Your task to perform on an android device: turn off data saver in the chrome app Image 0: 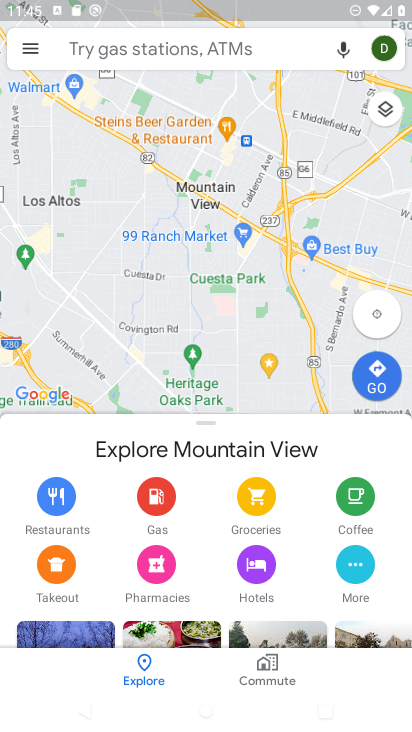
Step 0: press home button
Your task to perform on an android device: turn off data saver in the chrome app Image 1: 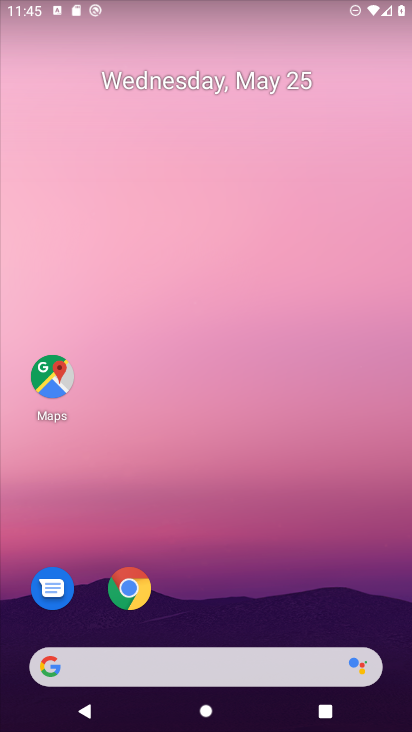
Step 1: click (122, 582)
Your task to perform on an android device: turn off data saver in the chrome app Image 2: 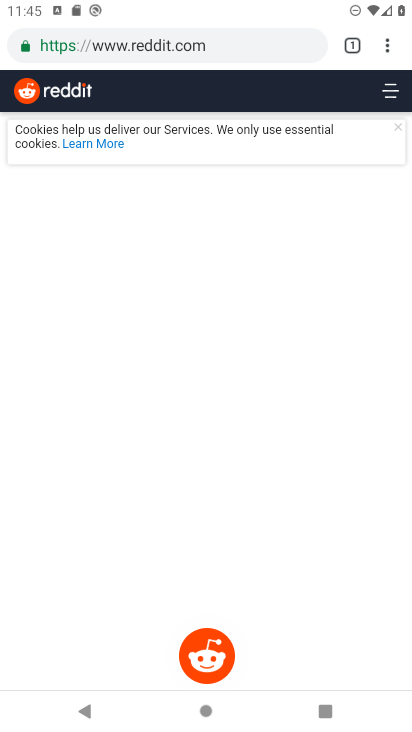
Step 2: click (383, 40)
Your task to perform on an android device: turn off data saver in the chrome app Image 3: 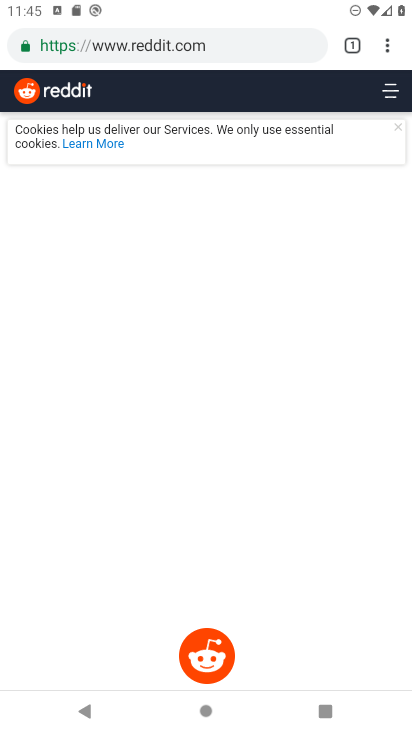
Step 3: click (385, 47)
Your task to perform on an android device: turn off data saver in the chrome app Image 4: 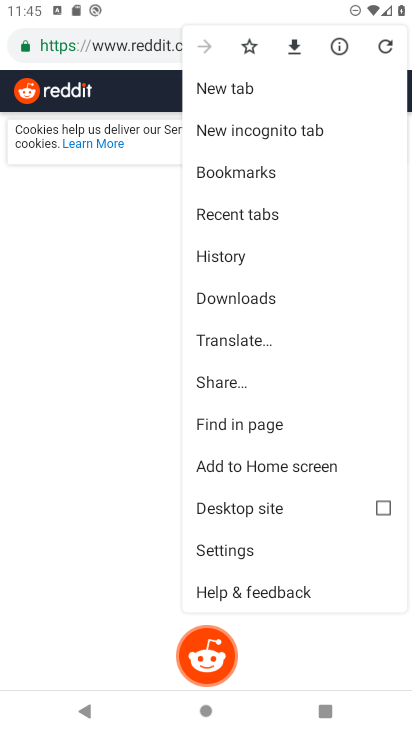
Step 4: click (267, 549)
Your task to perform on an android device: turn off data saver in the chrome app Image 5: 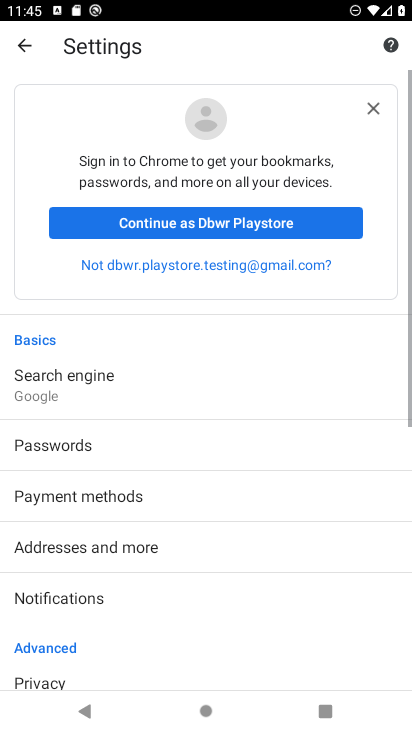
Step 5: drag from (7, 569) to (227, 203)
Your task to perform on an android device: turn off data saver in the chrome app Image 6: 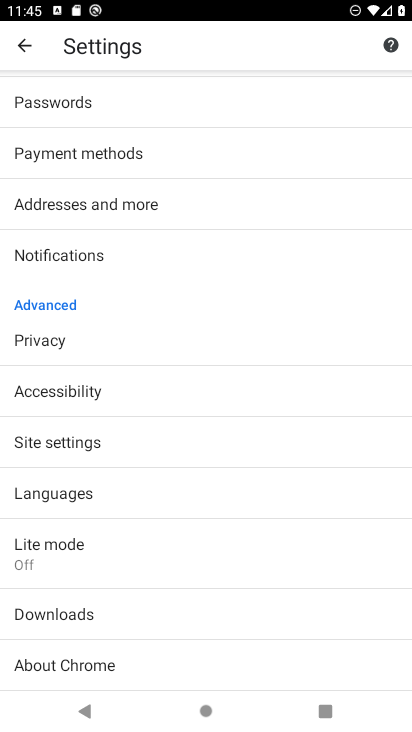
Step 6: drag from (7, 620) to (124, 425)
Your task to perform on an android device: turn off data saver in the chrome app Image 7: 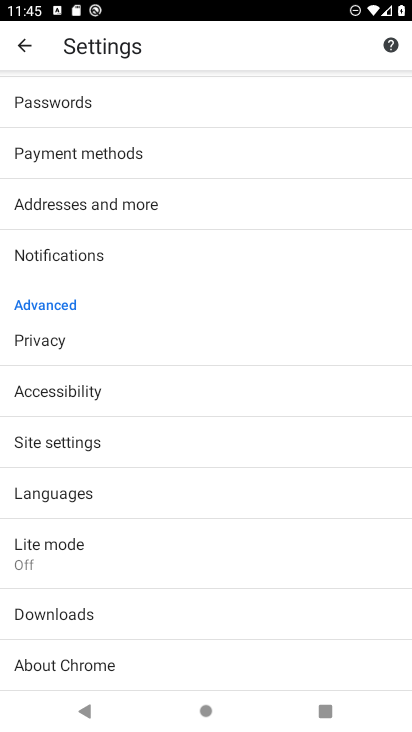
Step 7: click (49, 551)
Your task to perform on an android device: turn off data saver in the chrome app Image 8: 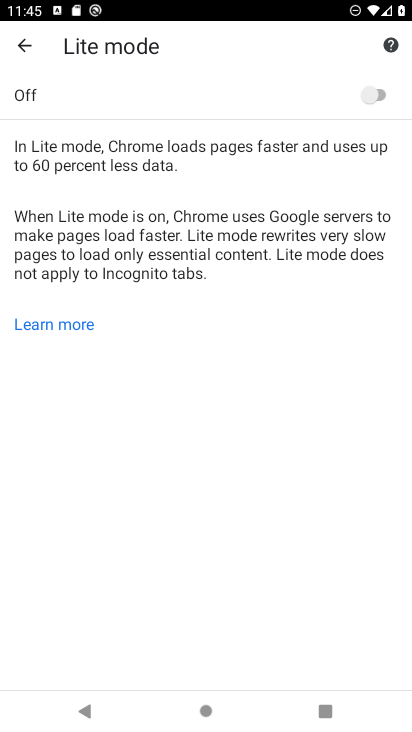
Step 8: task complete